Your task to perform on an android device: check the backup settings in the google photos Image 0: 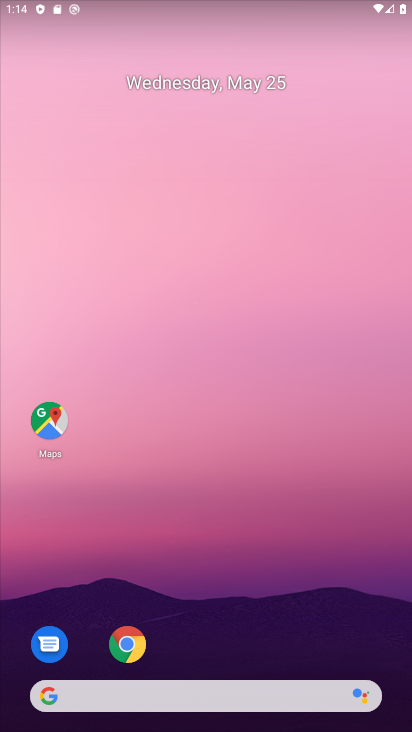
Step 0: drag from (232, 619) to (204, 2)
Your task to perform on an android device: check the backup settings in the google photos Image 1: 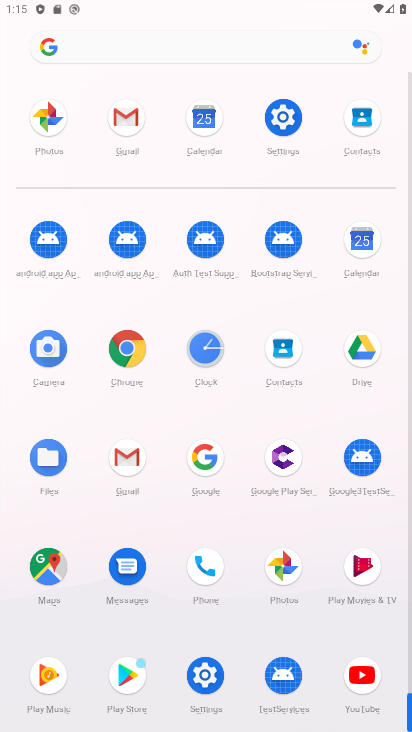
Step 1: click (295, 578)
Your task to perform on an android device: check the backup settings in the google photos Image 2: 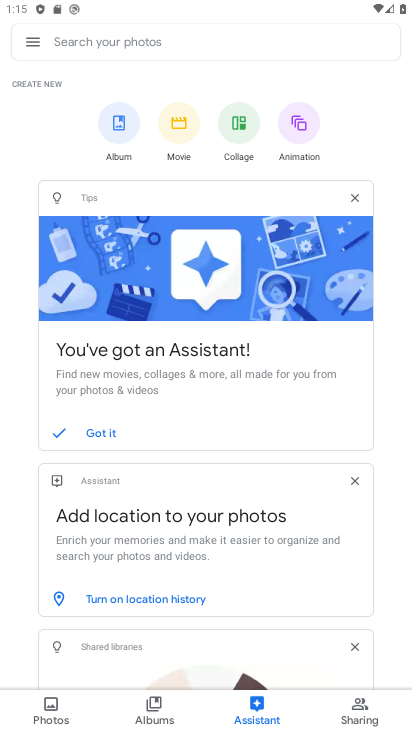
Step 2: click (40, 43)
Your task to perform on an android device: check the backup settings in the google photos Image 3: 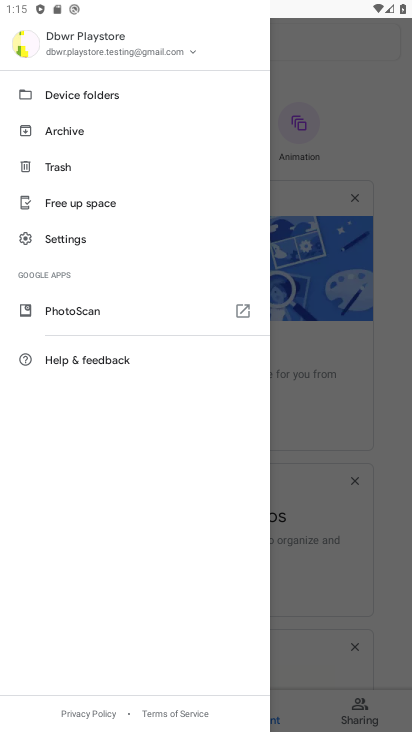
Step 3: click (73, 240)
Your task to perform on an android device: check the backup settings in the google photos Image 4: 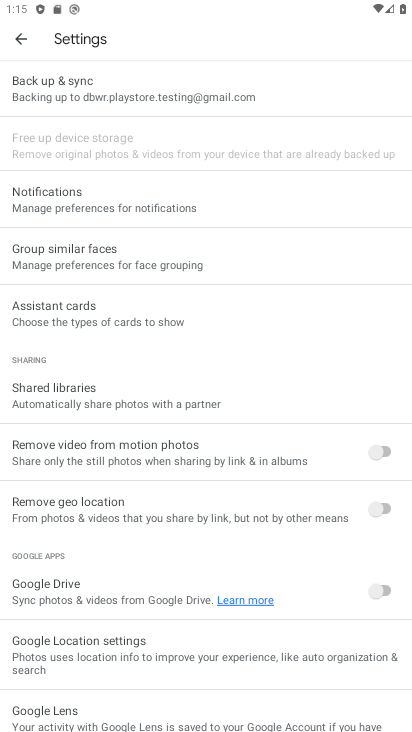
Step 4: click (78, 99)
Your task to perform on an android device: check the backup settings in the google photos Image 5: 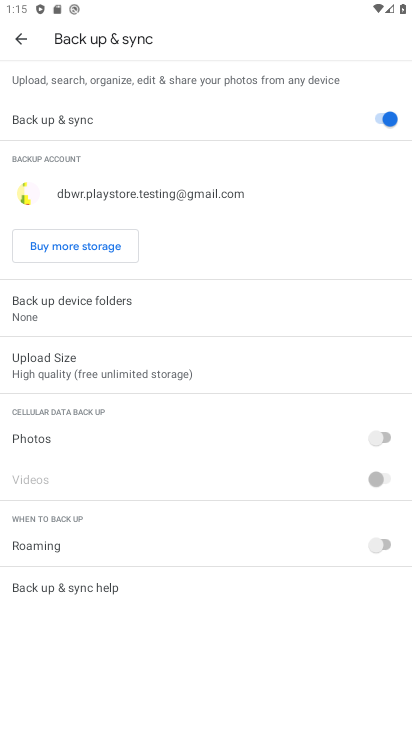
Step 5: task complete